Your task to perform on an android device: Open calendar and show me the first week of next month Image 0: 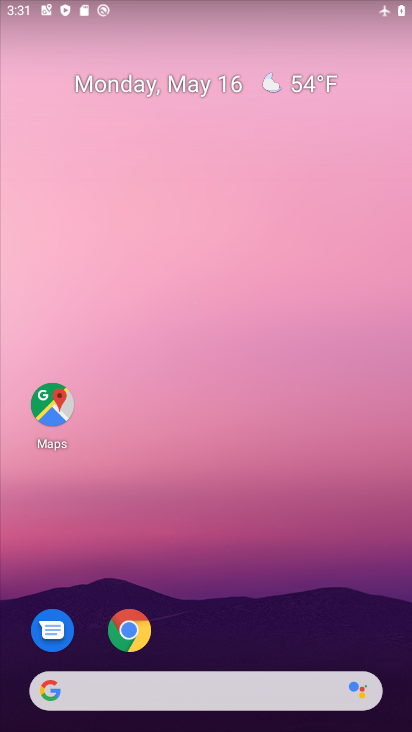
Step 0: drag from (228, 634) to (198, 73)
Your task to perform on an android device: Open calendar and show me the first week of next month Image 1: 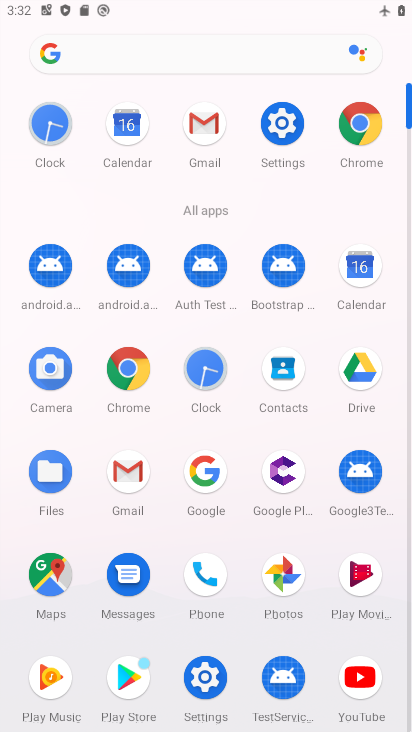
Step 1: click (373, 266)
Your task to perform on an android device: Open calendar and show me the first week of next month Image 2: 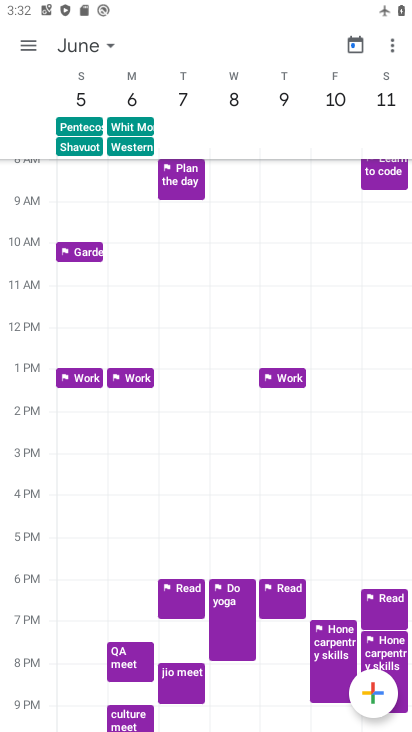
Step 2: click (114, 49)
Your task to perform on an android device: Open calendar and show me the first week of next month Image 3: 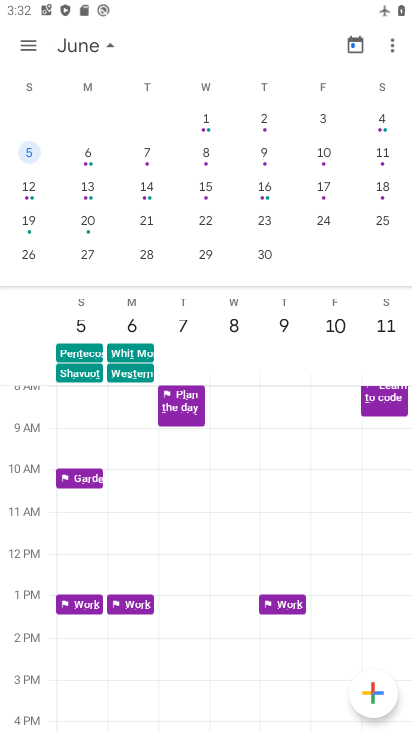
Step 3: click (209, 116)
Your task to perform on an android device: Open calendar and show me the first week of next month Image 4: 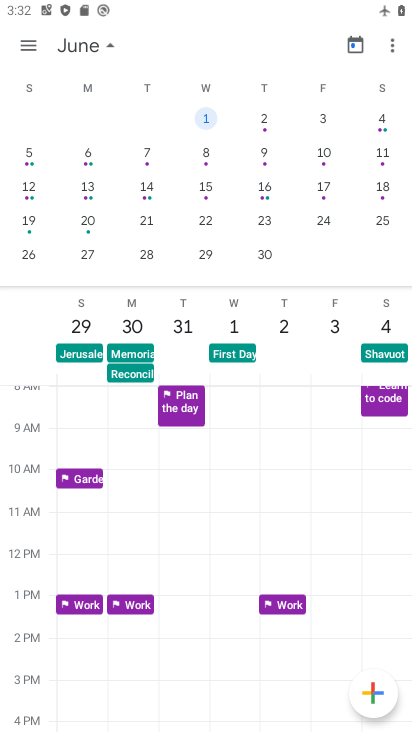
Step 4: click (108, 51)
Your task to perform on an android device: Open calendar and show me the first week of next month Image 5: 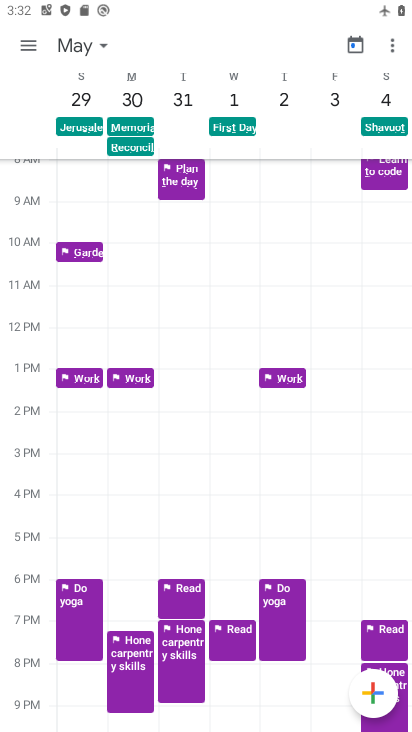
Step 5: task complete